Your task to perform on an android device: Go to Reddit.com Image 0: 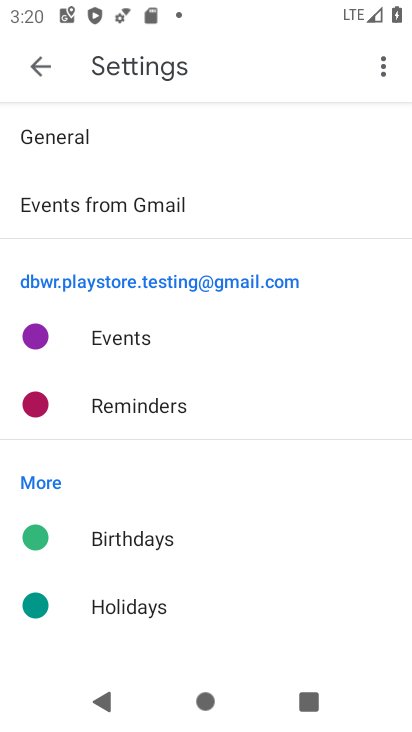
Step 0: press home button
Your task to perform on an android device: Go to Reddit.com Image 1: 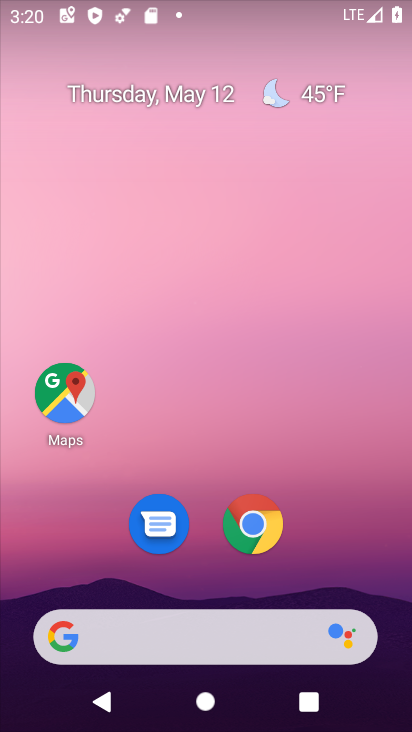
Step 1: click (187, 646)
Your task to perform on an android device: Go to Reddit.com Image 2: 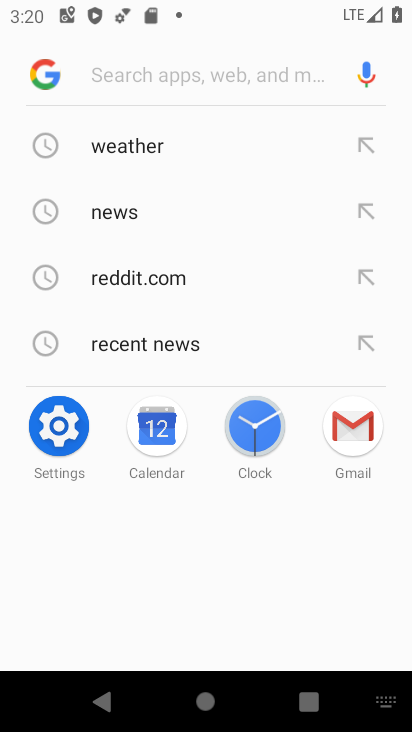
Step 2: click (144, 271)
Your task to perform on an android device: Go to Reddit.com Image 3: 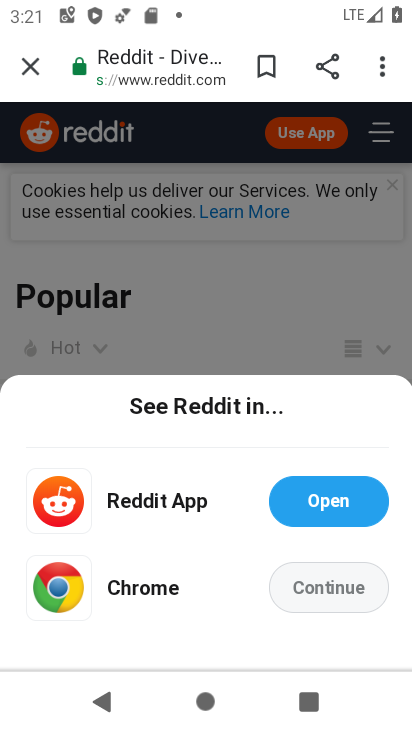
Step 3: task complete